Your task to perform on an android device: stop showing notifications on the lock screen Image 0: 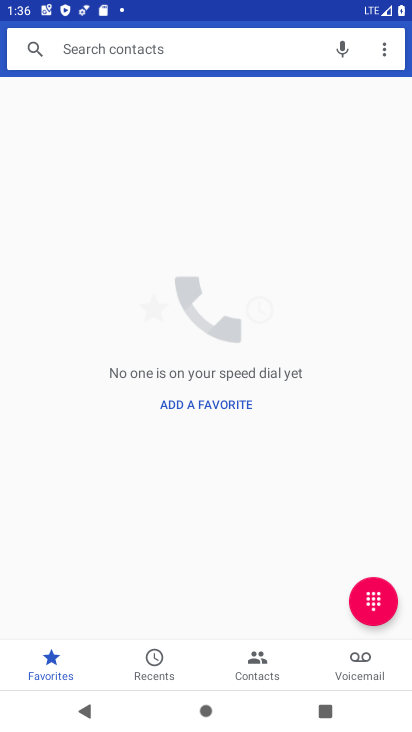
Step 0: press home button
Your task to perform on an android device: stop showing notifications on the lock screen Image 1: 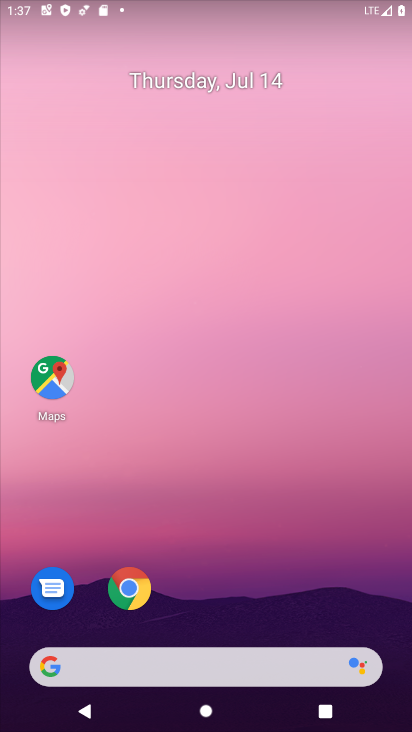
Step 1: drag from (254, 552) to (247, 97)
Your task to perform on an android device: stop showing notifications on the lock screen Image 2: 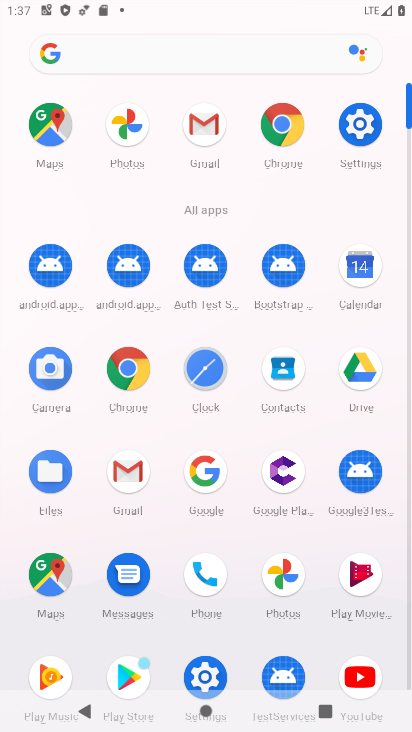
Step 2: click (346, 127)
Your task to perform on an android device: stop showing notifications on the lock screen Image 3: 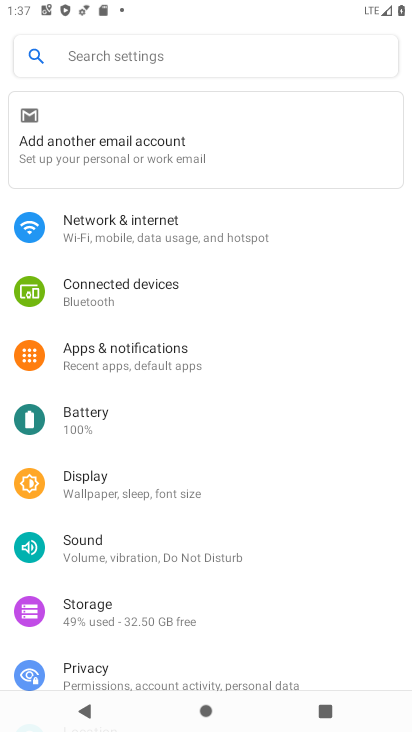
Step 3: click (170, 366)
Your task to perform on an android device: stop showing notifications on the lock screen Image 4: 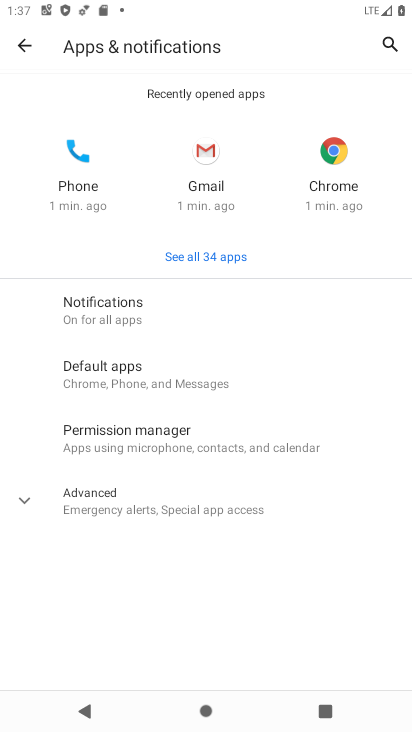
Step 4: click (156, 319)
Your task to perform on an android device: stop showing notifications on the lock screen Image 5: 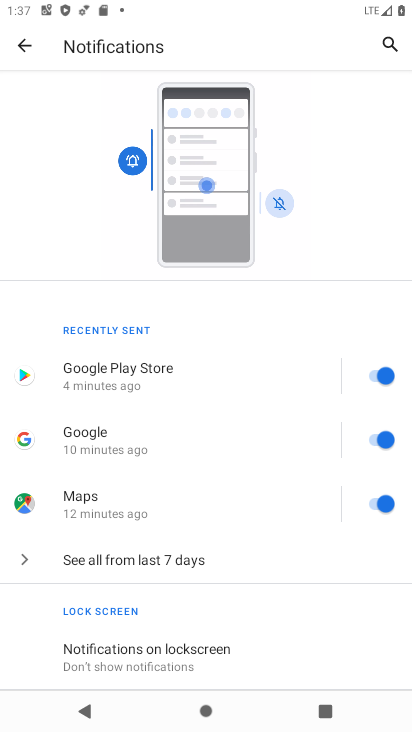
Step 5: click (185, 656)
Your task to perform on an android device: stop showing notifications on the lock screen Image 6: 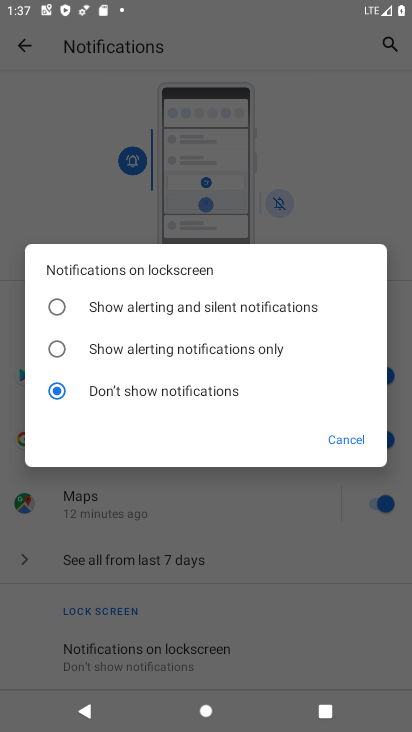
Step 6: click (233, 388)
Your task to perform on an android device: stop showing notifications on the lock screen Image 7: 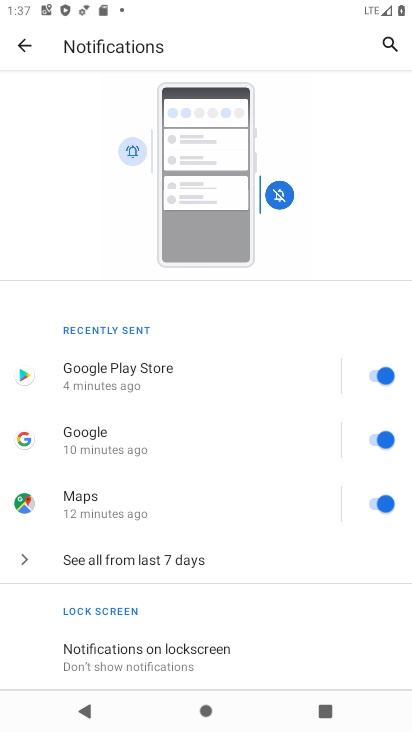
Step 7: task complete